Your task to perform on an android device: turn pop-ups off in chrome Image 0: 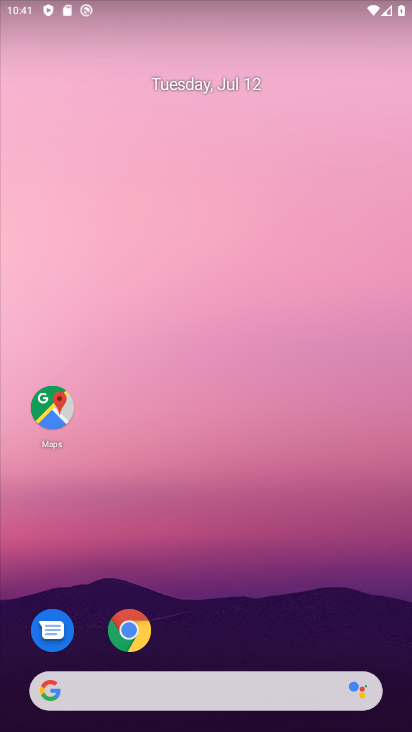
Step 0: drag from (397, 644) to (238, 26)
Your task to perform on an android device: turn pop-ups off in chrome Image 1: 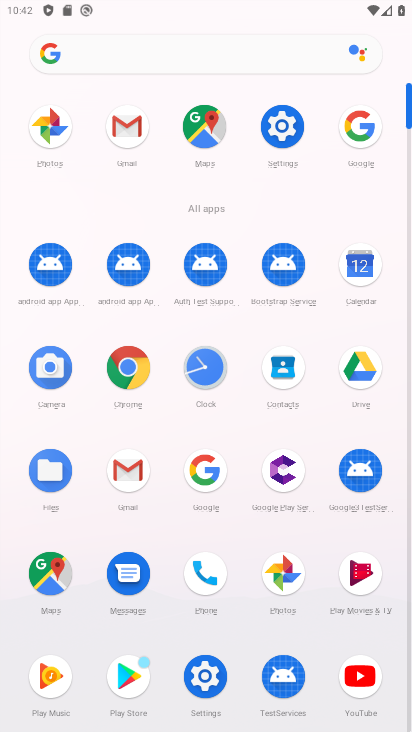
Step 1: click (115, 378)
Your task to perform on an android device: turn pop-ups off in chrome Image 2: 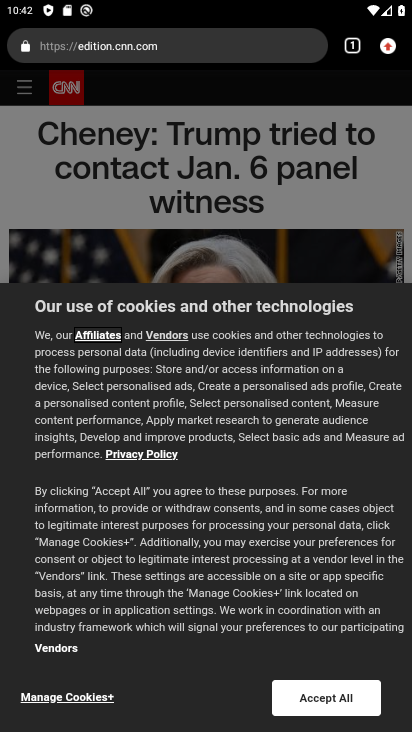
Step 2: press back button
Your task to perform on an android device: turn pop-ups off in chrome Image 3: 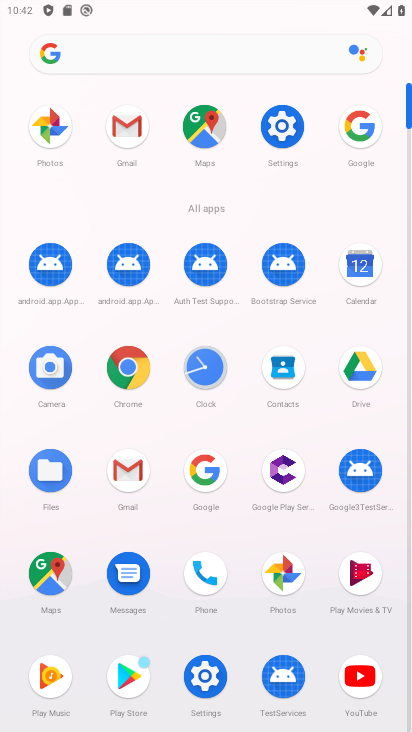
Step 3: click (130, 391)
Your task to perform on an android device: turn pop-ups off in chrome Image 4: 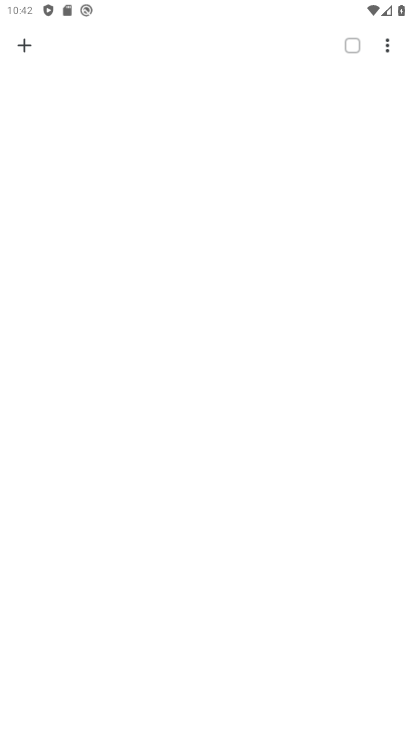
Step 4: click (384, 41)
Your task to perform on an android device: turn pop-ups off in chrome Image 5: 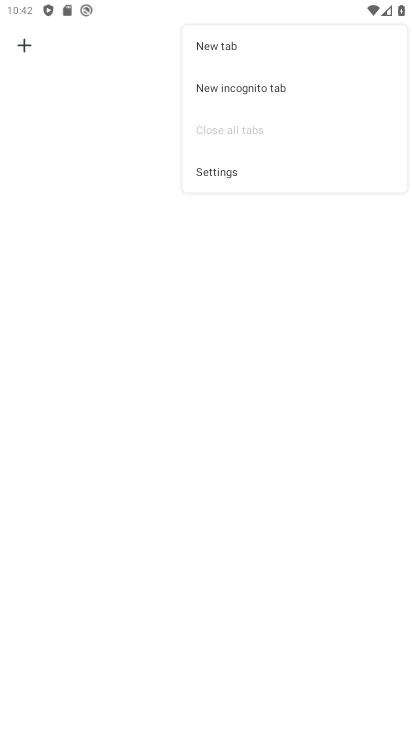
Step 5: click (238, 177)
Your task to perform on an android device: turn pop-ups off in chrome Image 6: 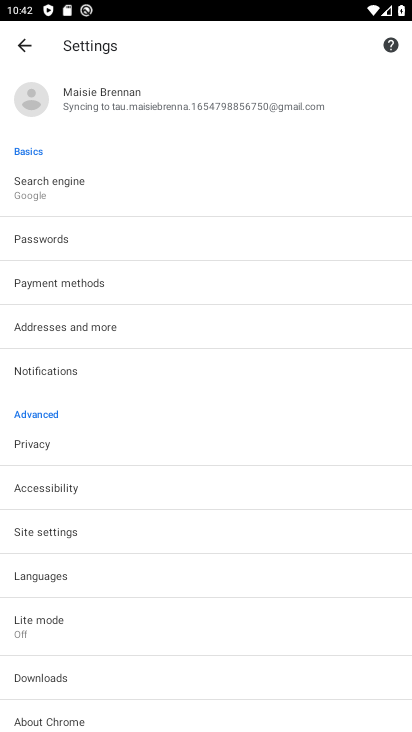
Step 6: click (68, 537)
Your task to perform on an android device: turn pop-ups off in chrome Image 7: 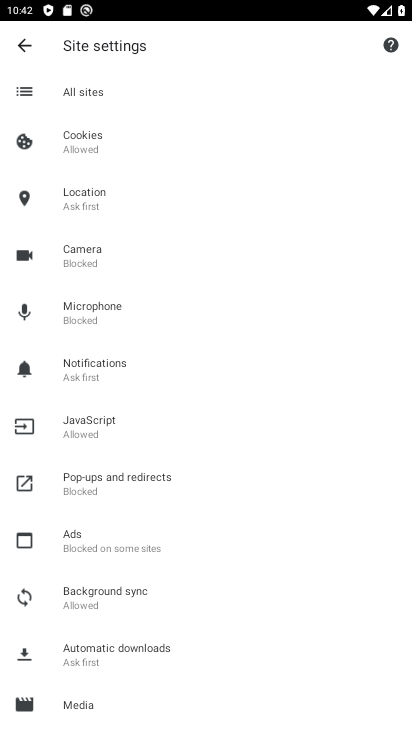
Step 7: click (139, 480)
Your task to perform on an android device: turn pop-ups off in chrome Image 8: 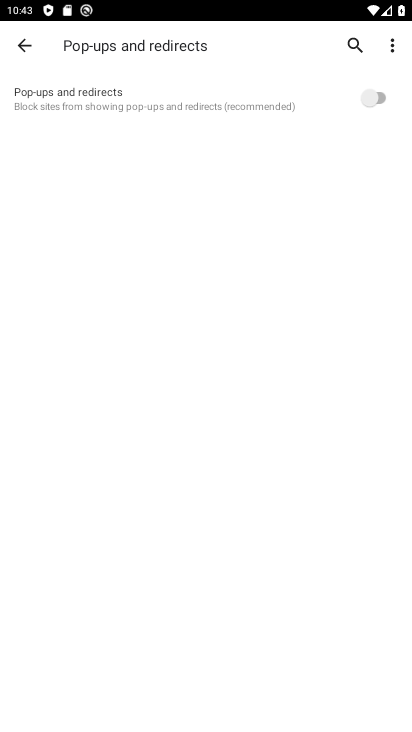
Step 8: task complete